Your task to perform on an android device: show emergency info Image 0: 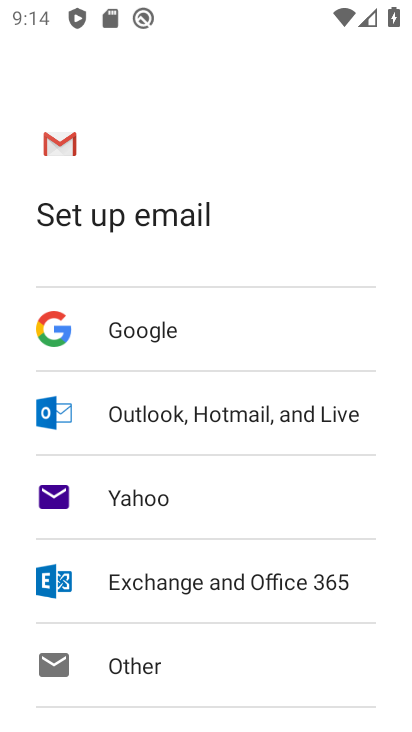
Step 0: press home button
Your task to perform on an android device: show emergency info Image 1: 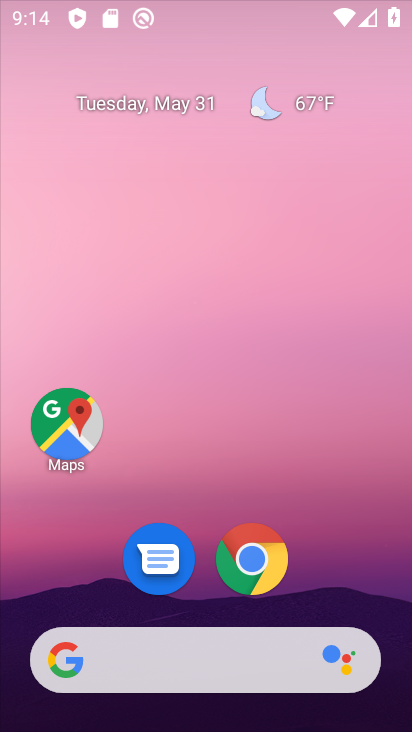
Step 1: drag from (338, 570) to (327, 14)
Your task to perform on an android device: show emergency info Image 2: 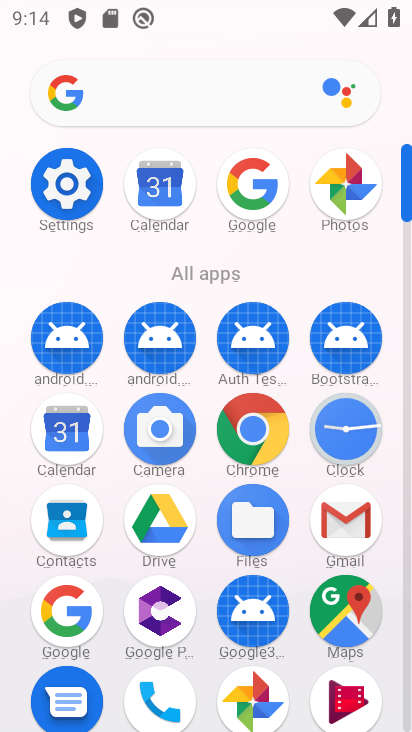
Step 2: click (61, 184)
Your task to perform on an android device: show emergency info Image 3: 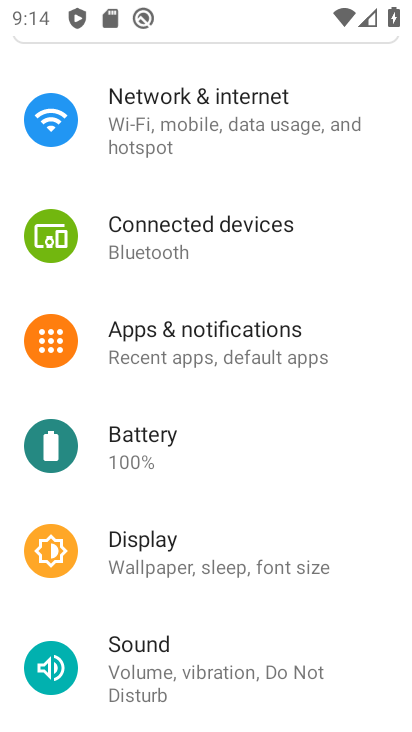
Step 3: drag from (265, 648) to (285, 0)
Your task to perform on an android device: show emergency info Image 4: 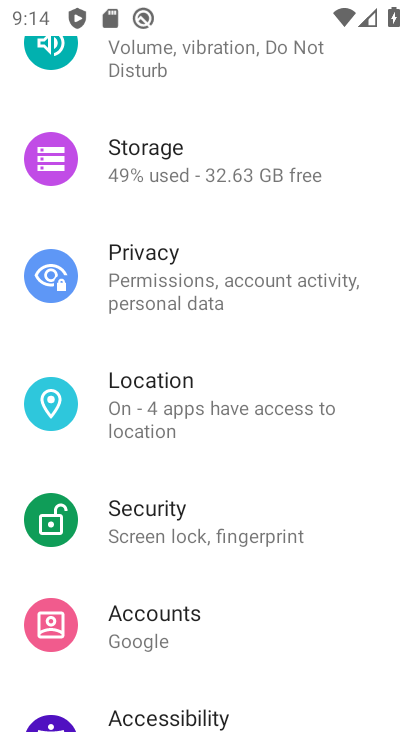
Step 4: drag from (251, 650) to (245, 113)
Your task to perform on an android device: show emergency info Image 5: 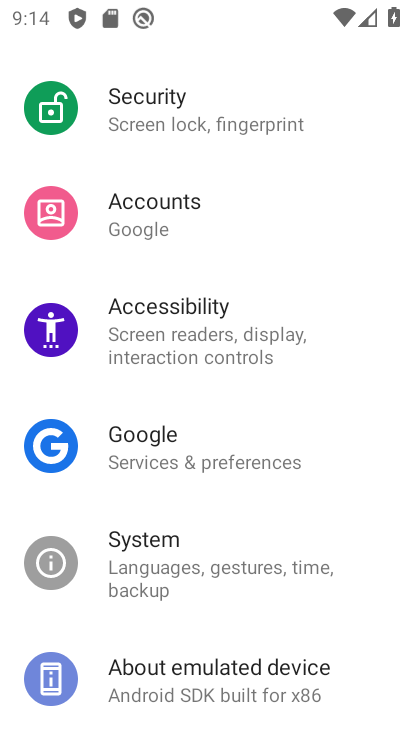
Step 5: click (208, 682)
Your task to perform on an android device: show emergency info Image 6: 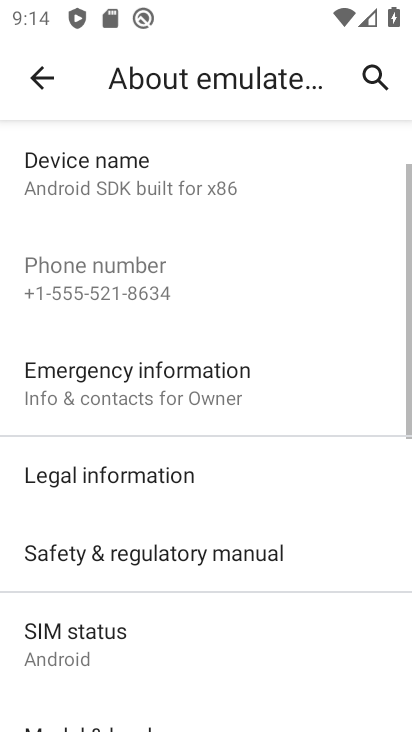
Step 6: click (144, 378)
Your task to perform on an android device: show emergency info Image 7: 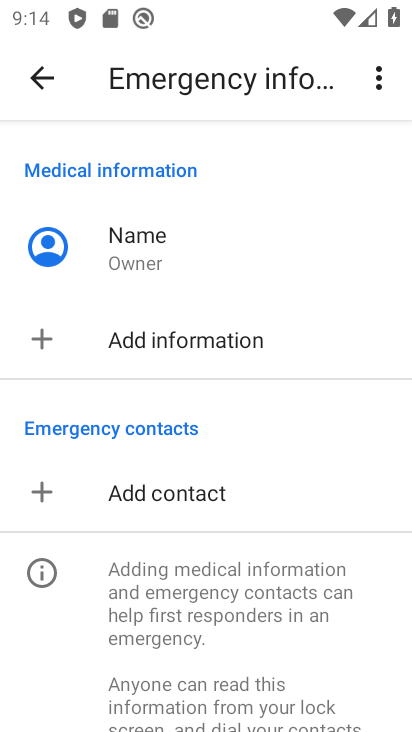
Step 7: task complete